Your task to perform on an android device: move a message to another label in the gmail app Image 0: 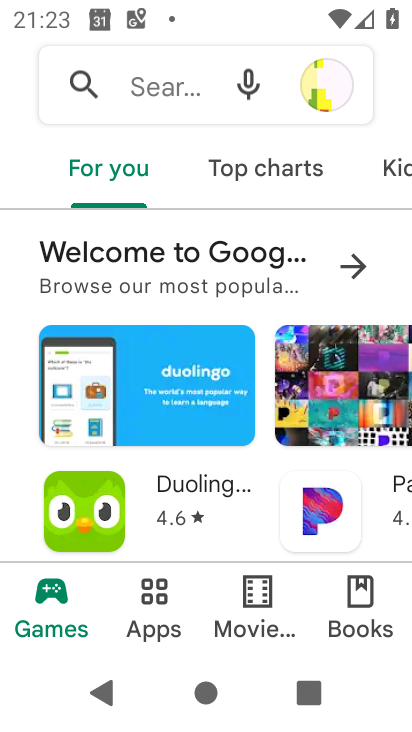
Step 0: press home button
Your task to perform on an android device: move a message to another label in the gmail app Image 1: 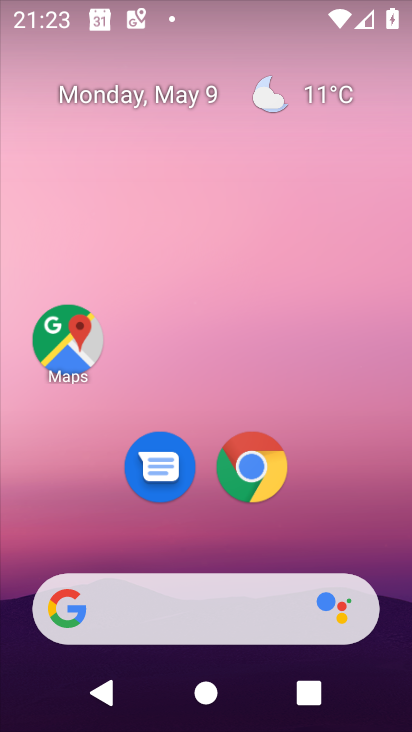
Step 1: drag from (360, 259) to (329, 60)
Your task to perform on an android device: move a message to another label in the gmail app Image 2: 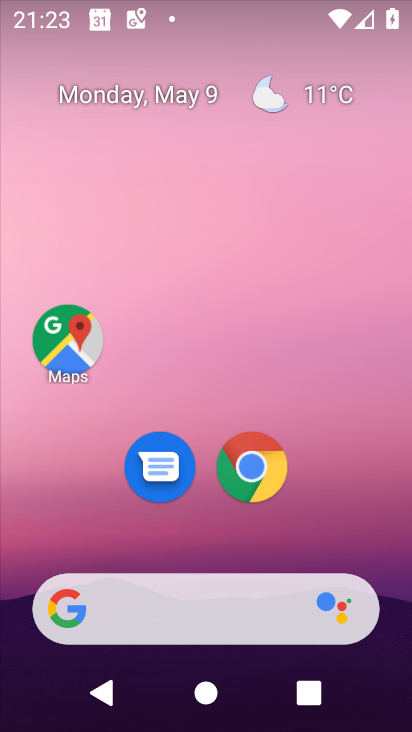
Step 2: drag from (310, 538) to (295, 206)
Your task to perform on an android device: move a message to another label in the gmail app Image 3: 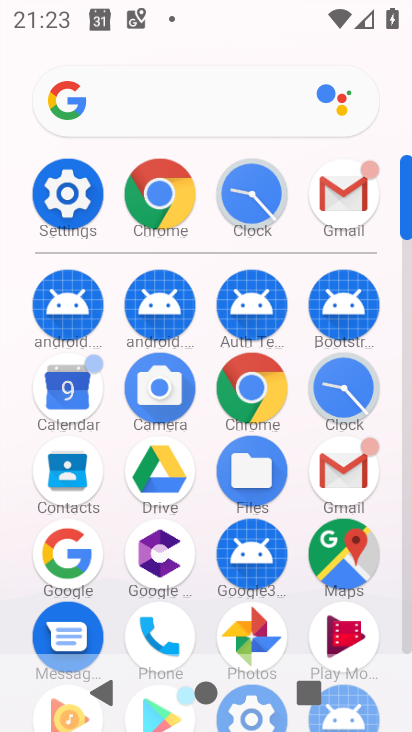
Step 3: click (345, 202)
Your task to perform on an android device: move a message to another label in the gmail app Image 4: 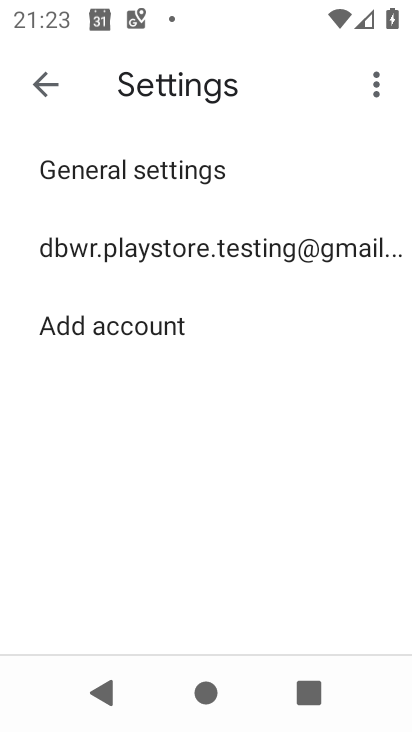
Step 4: click (40, 74)
Your task to perform on an android device: move a message to another label in the gmail app Image 5: 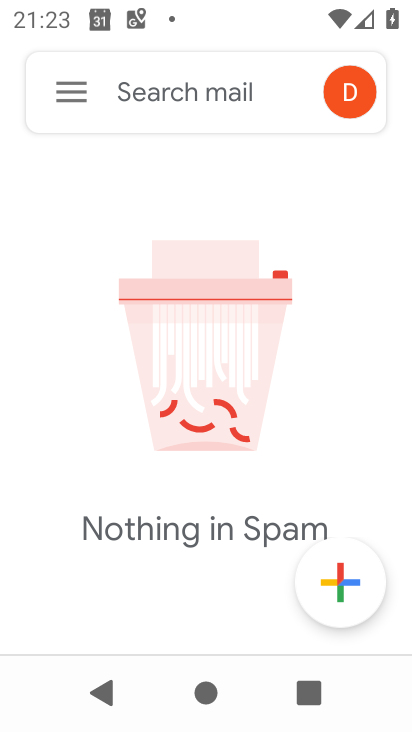
Step 5: click (71, 88)
Your task to perform on an android device: move a message to another label in the gmail app Image 6: 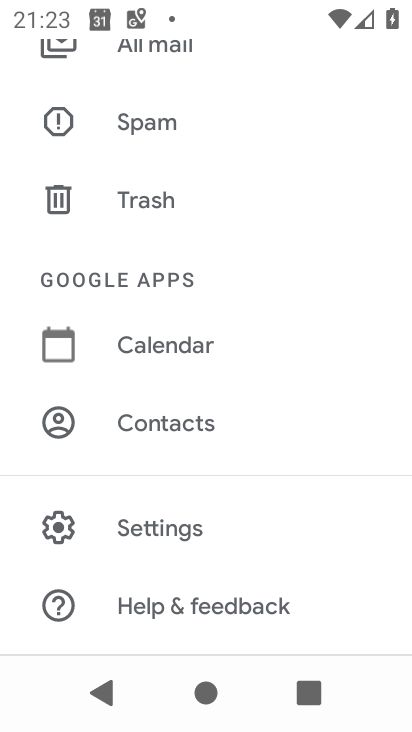
Step 6: click (136, 49)
Your task to perform on an android device: move a message to another label in the gmail app Image 7: 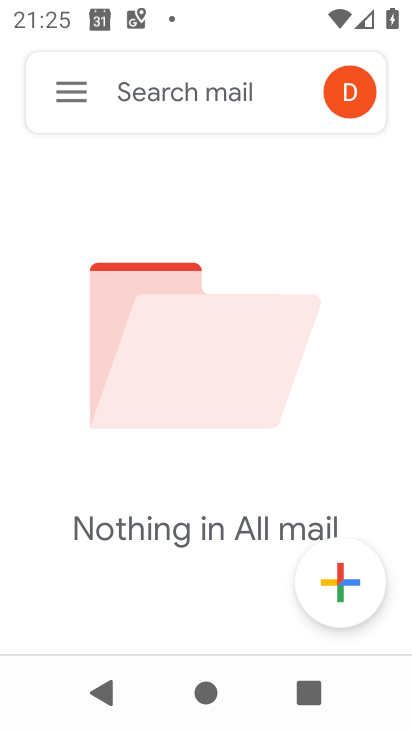
Step 7: task complete